Your task to perform on an android device: turn smart compose on in the gmail app Image 0: 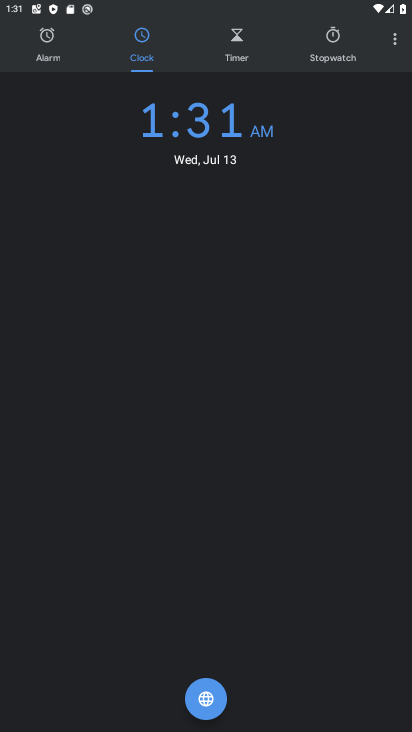
Step 0: press home button
Your task to perform on an android device: turn smart compose on in the gmail app Image 1: 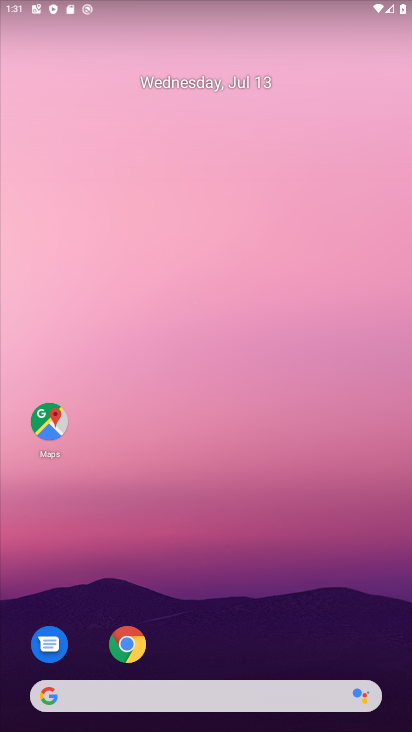
Step 1: drag from (251, 598) to (232, 211)
Your task to perform on an android device: turn smart compose on in the gmail app Image 2: 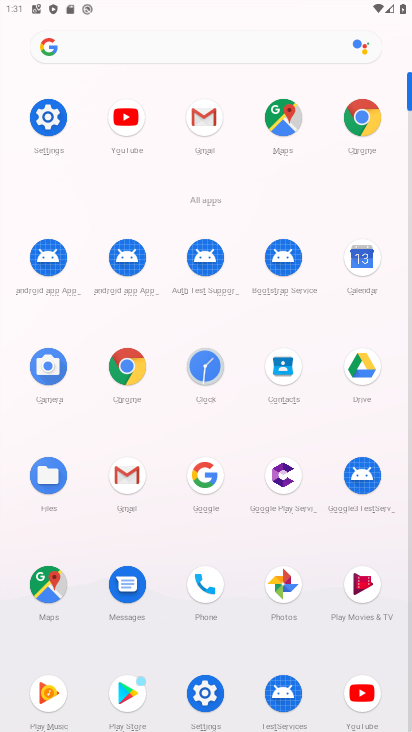
Step 2: click (192, 126)
Your task to perform on an android device: turn smart compose on in the gmail app Image 3: 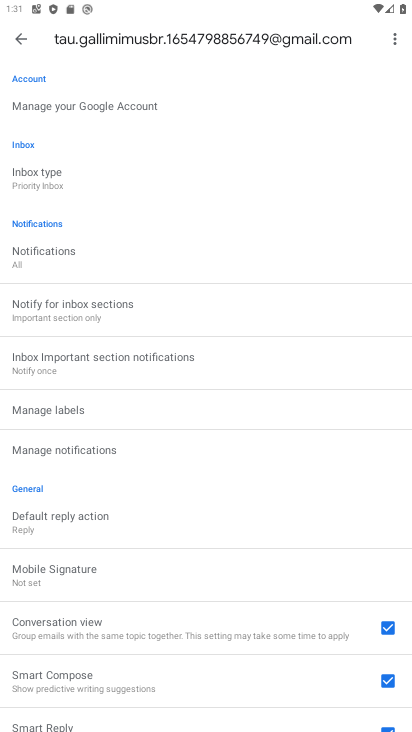
Step 3: task complete